Your task to perform on an android device: check data usage Image 0: 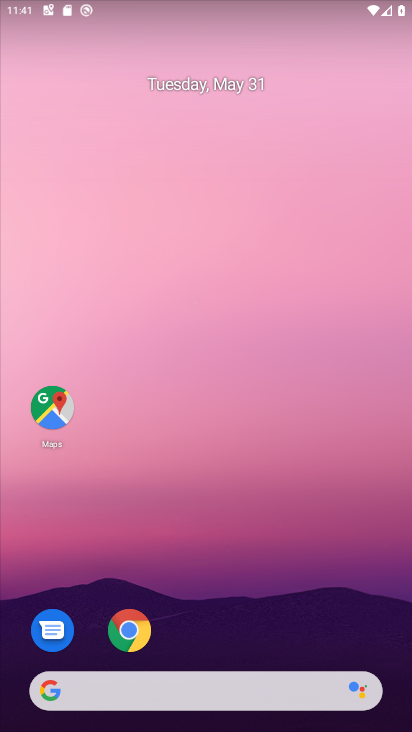
Step 0: drag from (155, 609) to (176, 137)
Your task to perform on an android device: check data usage Image 1: 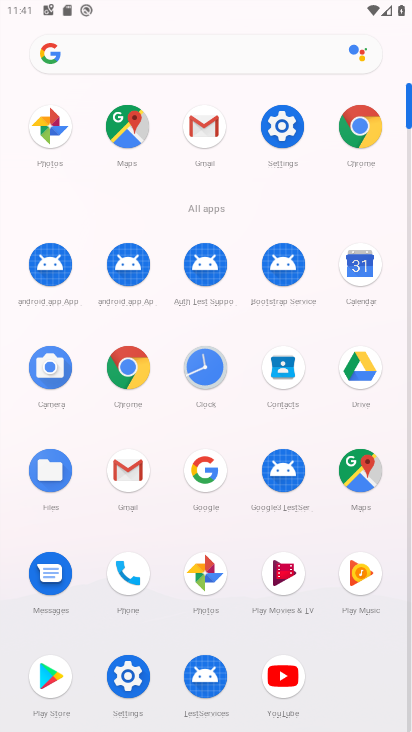
Step 1: click (274, 119)
Your task to perform on an android device: check data usage Image 2: 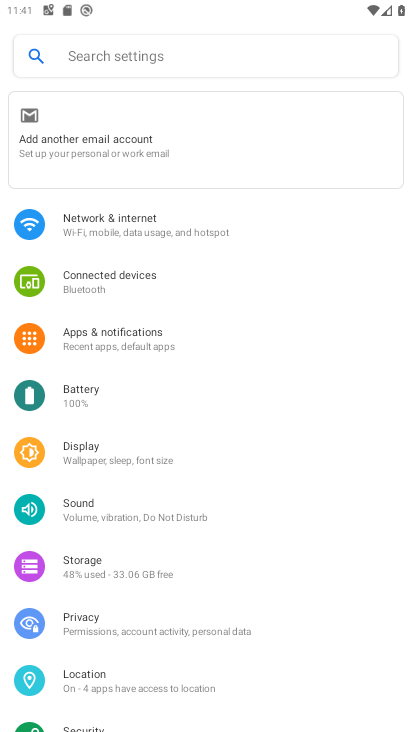
Step 2: click (142, 222)
Your task to perform on an android device: check data usage Image 3: 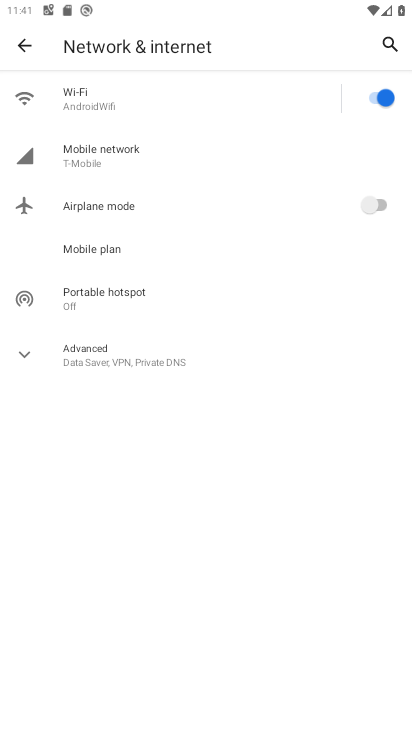
Step 3: click (118, 157)
Your task to perform on an android device: check data usage Image 4: 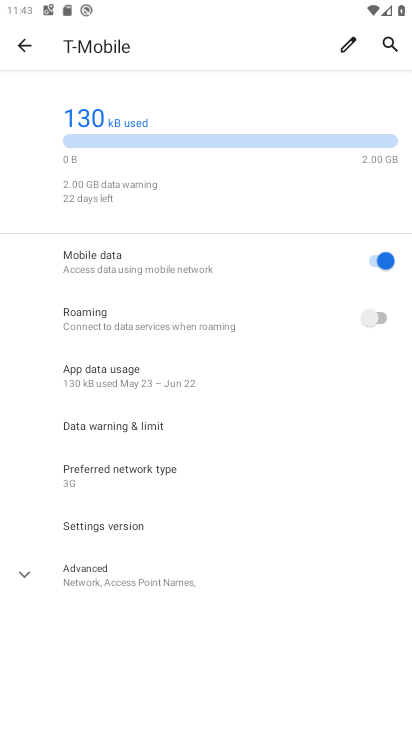
Step 4: task complete